Your task to perform on an android device: Open sound settings Image 0: 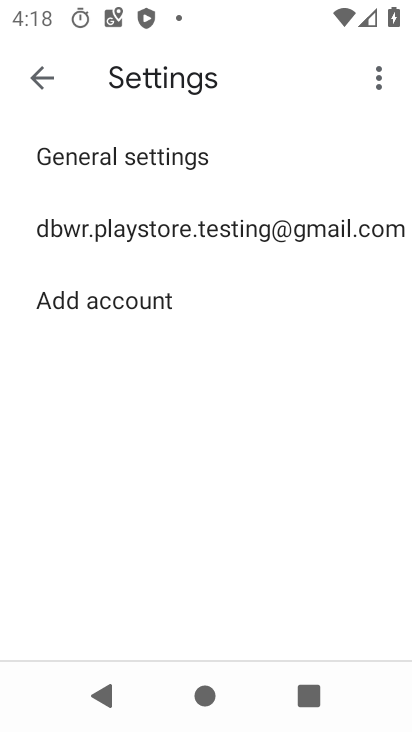
Step 0: press home button
Your task to perform on an android device: Open sound settings Image 1: 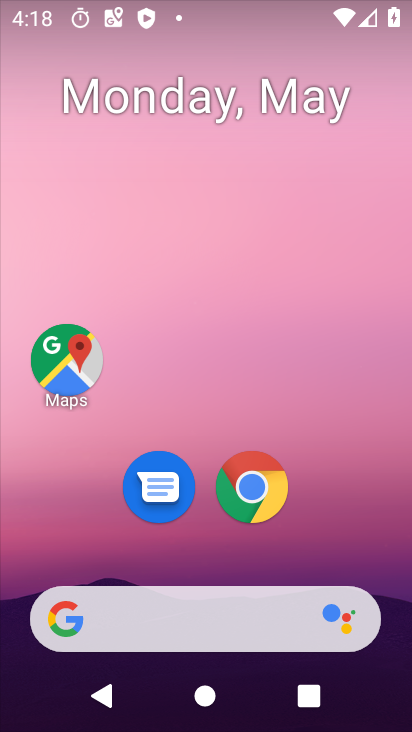
Step 1: drag from (197, 554) to (194, 161)
Your task to perform on an android device: Open sound settings Image 2: 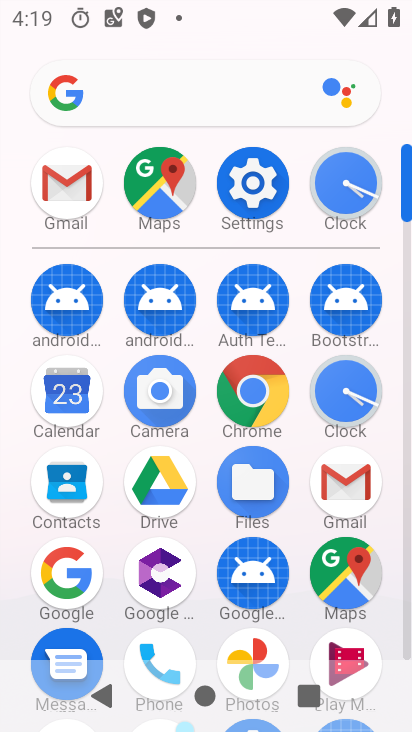
Step 2: click (240, 179)
Your task to perform on an android device: Open sound settings Image 3: 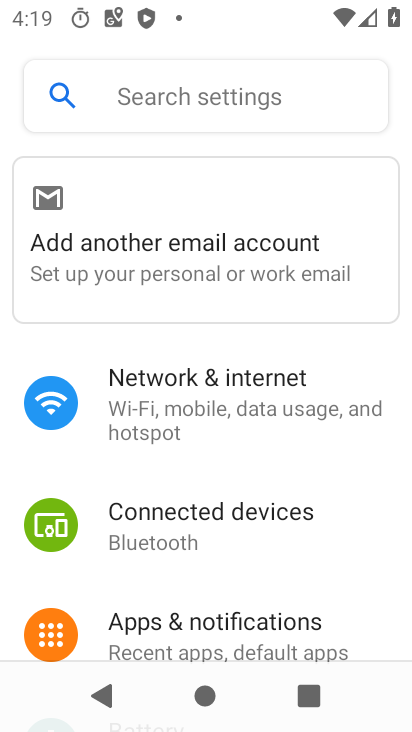
Step 3: drag from (190, 638) to (186, 278)
Your task to perform on an android device: Open sound settings Image 4: 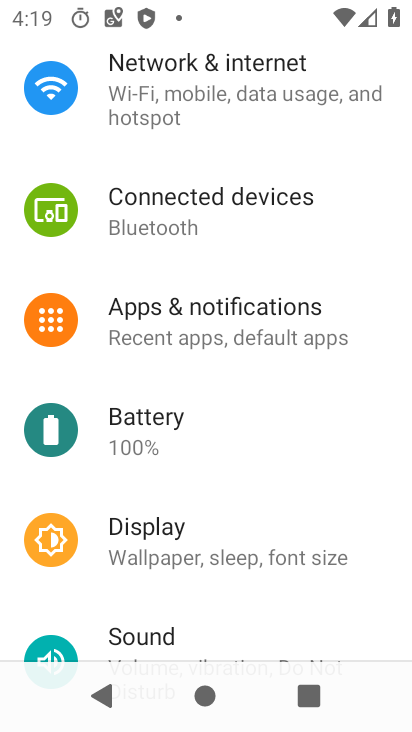
Step 4: click (163, 640)
Your task to perform on an android device: Open sound settings Image 5: 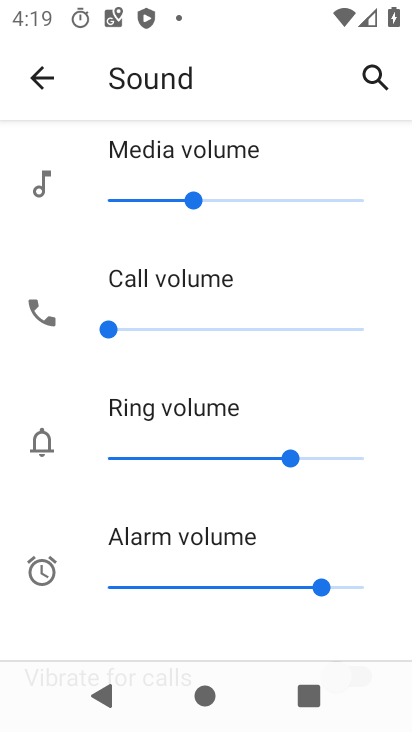
Step 5: task complete